Your task to perform on an android device: toggle sleep mode Image 0: 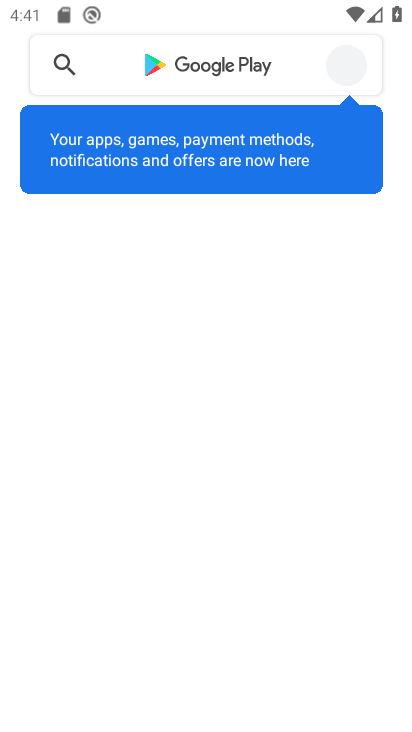
Step 0: press home button
Your task to perform on an android device: toggle sleep mode Image 1: 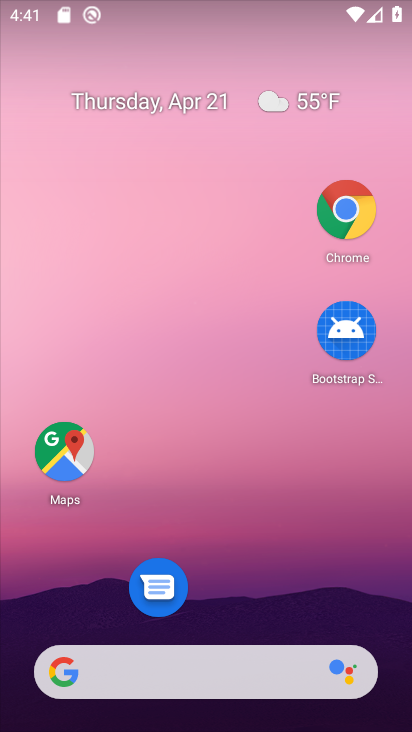
Step 1: drag from (278, 613) to (180, 112)
Your task to perform on an android device: toggle sleep mode Image 2: 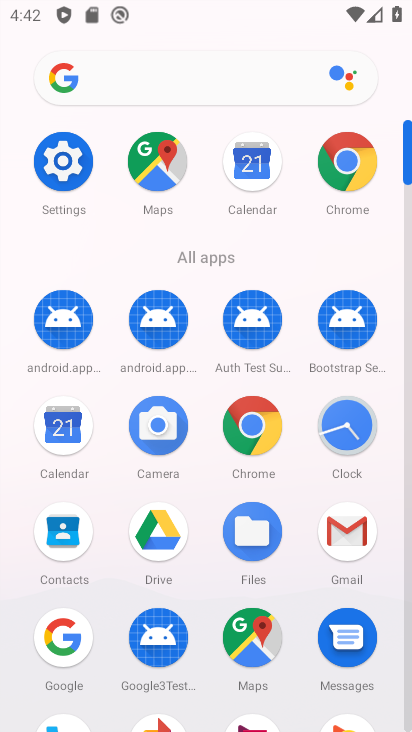
Step 2: click (60, 153)
Your task to perform on an android device: toggle sleep mode Image 3: 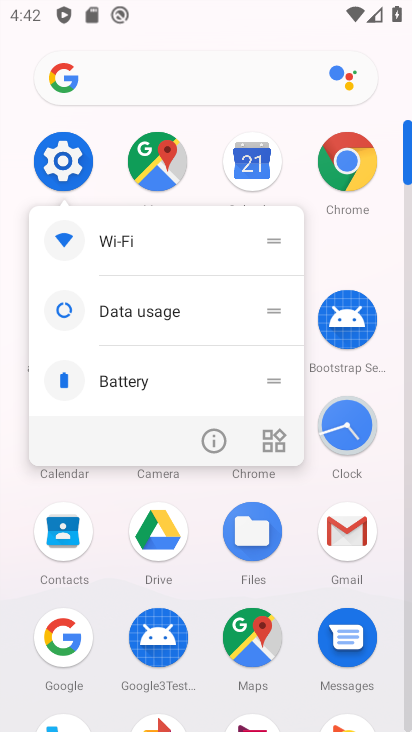
Step 3: click (59, 155)
Your task to perform on an android device: toggle sleep mode Image 4: 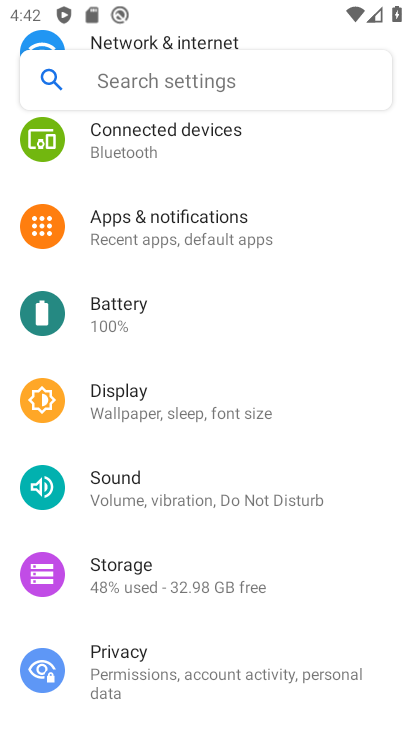
Step 4: click (188, 401)
Your task to perform on an android device: toggle sleep mode Image 5: 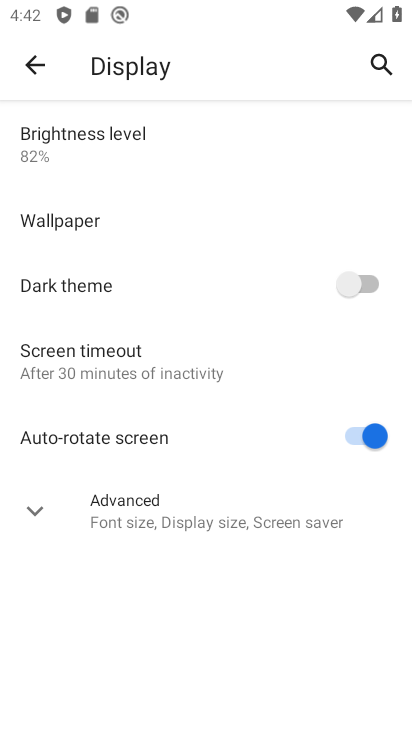
Step 5: click (158, 369)
Your task to perform on an android device: toggle sleep mode Image 6: 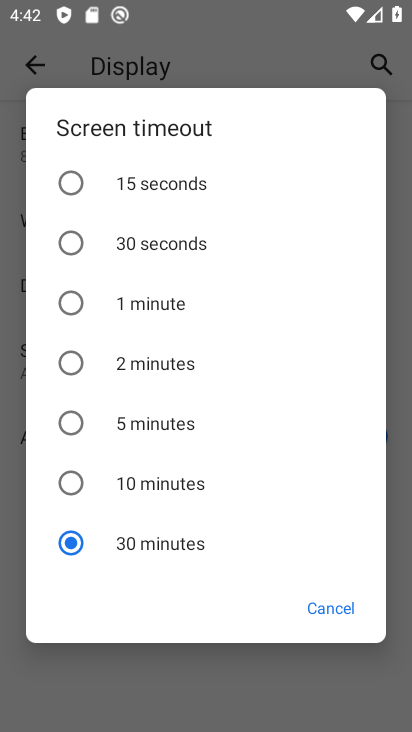
Step 6: click (143, 424)
Your task to perform on an android device: toggle sleep mode Image 7: 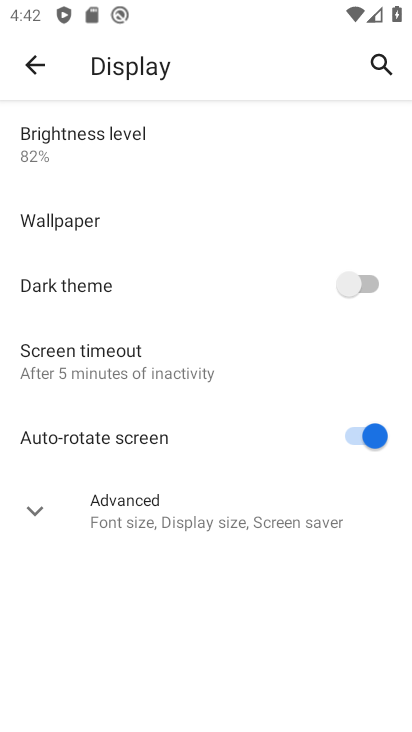
Step 7: task complete